Your task to perform on an android device: Open Google Chrome and open the bookmarks view Image 0: 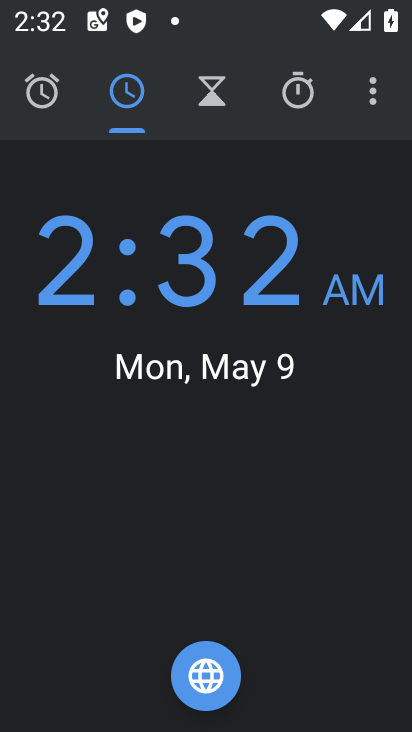
Step 0: press back button
Your task to perform on an android device: Open Google Chrome and open the bookmarks view Image 1: 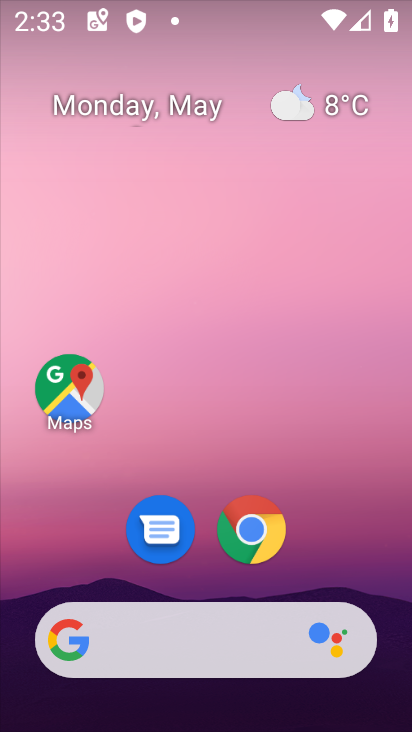
Step 1: click (258, 517)
Your task to perform on an android device: Open Google Chrome and open the bookmarks view Image 2: 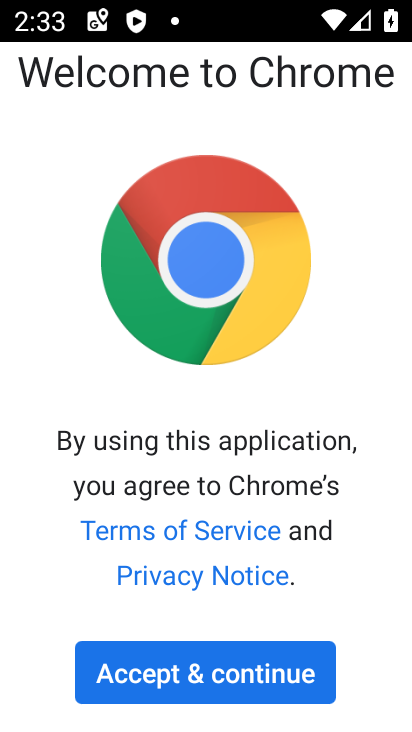
Step 2: click (236, 678)
Your task to perform on an android device: Open Google Chrome and open the bookmarks view Image 3: 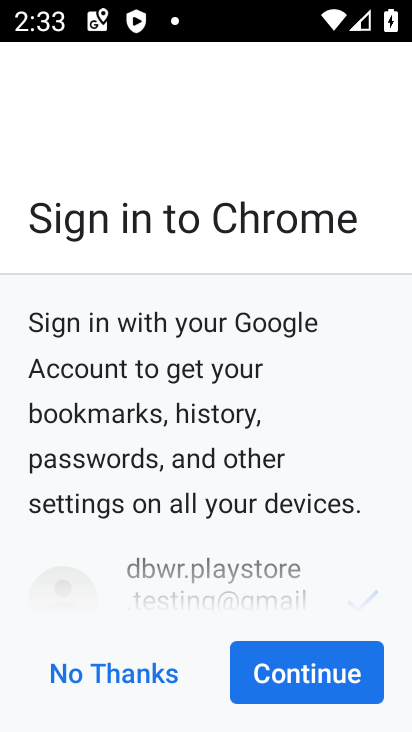
Step 3: click (277, 669)
Your task to perform on an android device: Open Google Chrome and open the bookmarks view Image 4: 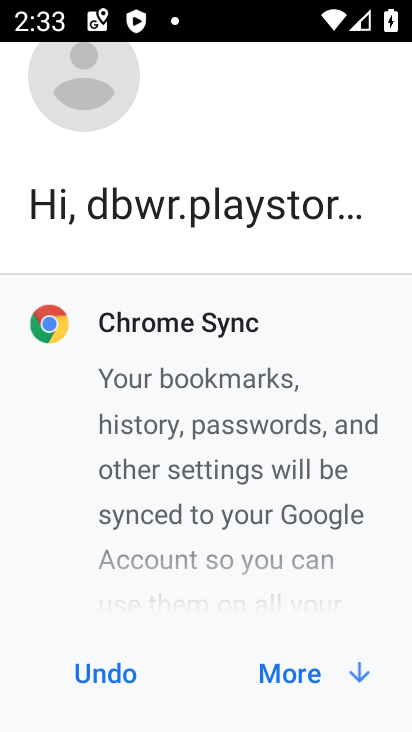
Step 4: click (277, 669)
Your task to perform on an android device: Open Google Chrome and open the bookmarks view Image 5: 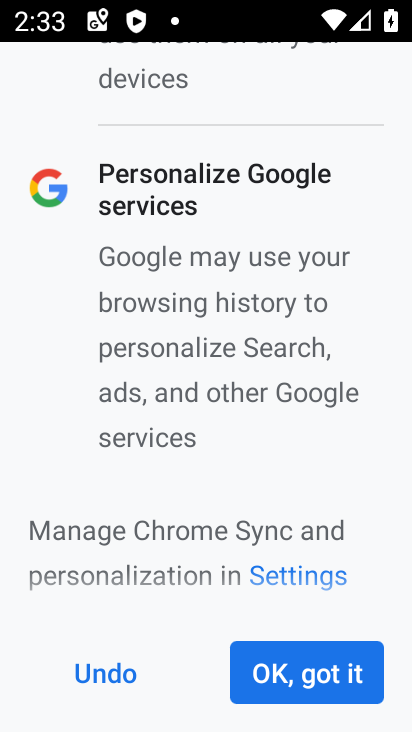
Step 5: click (281, 669)
Your task to perform on an android device: Open Google Chrome and open the bookmarks view Image 6: 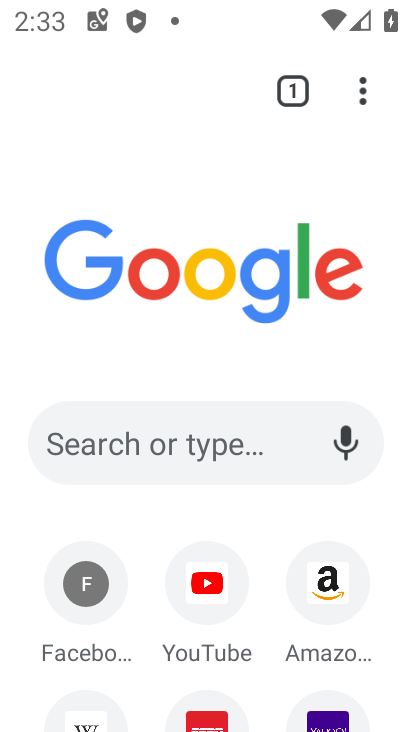
Step 6: task complete